Your task to perform on an android device: Open settings on Google Maps Image 0: 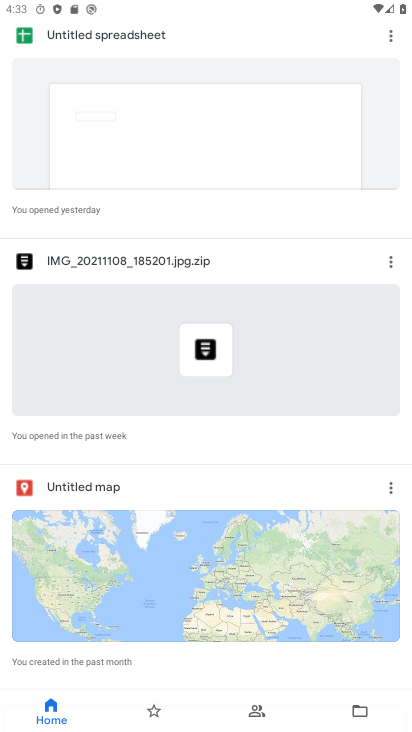
Step 0: press home button
Your task to perform on an android device: Open settings on Google Maps Image 1: 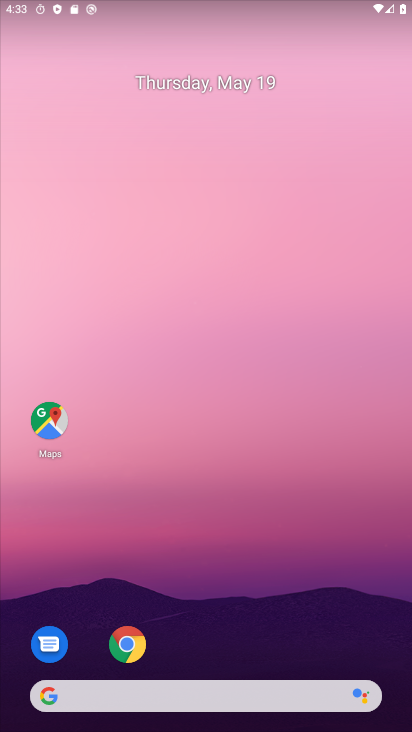
Step 1: drag from (182, 627) to (166, 174)
Your task to perform on an android device: Open settings on Google Maps Image 2: 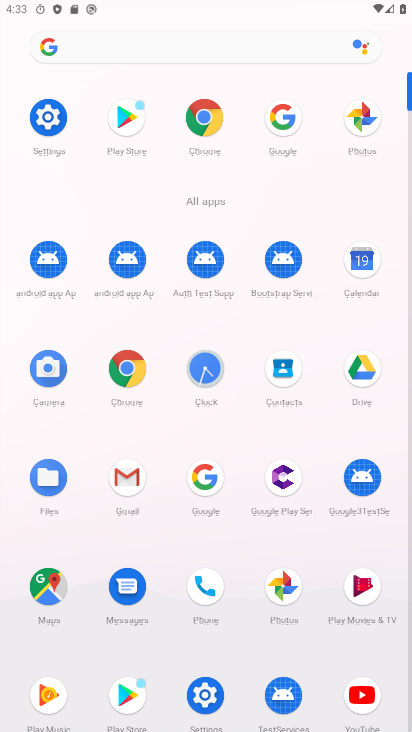
Step 2: click (43, 582)
Your task to perform on an android device: Open settings on Google Maps Image 3: 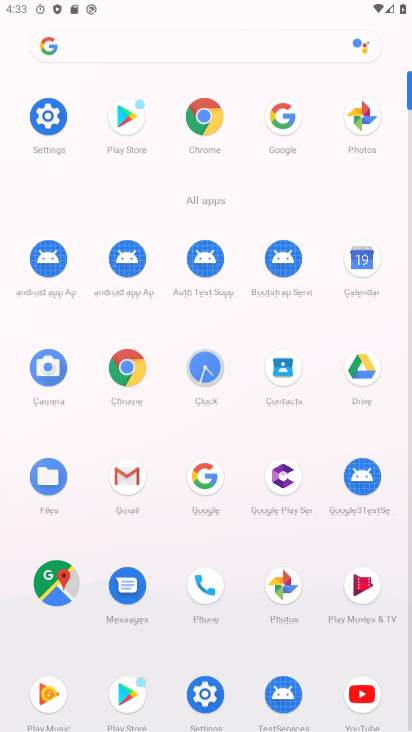
Step 3: click (49, 592)
Your task to perform on an android device: Open settings on Google Maps Image 4: 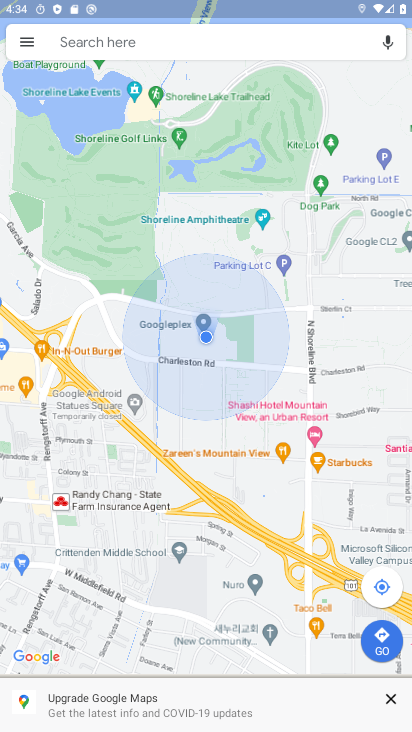
Step 4: click (32, 39)
Your task to perform on an android device: Open settings on Google Maps Image 5: 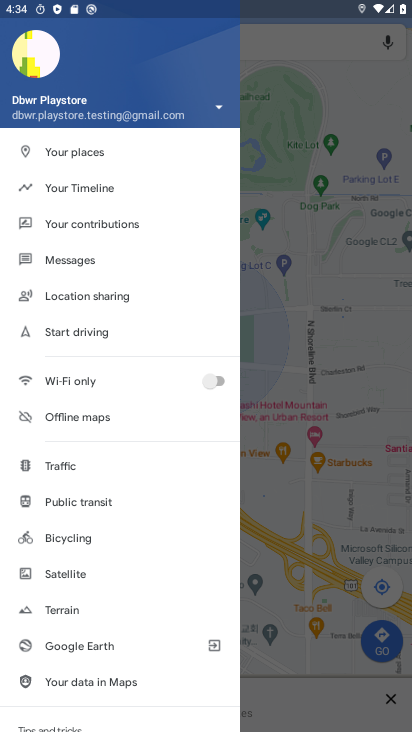
Step 5: drag from (89, 676) to (102, 278)
Your task to perform on an android device: Open settings on Google Maps Image 6: 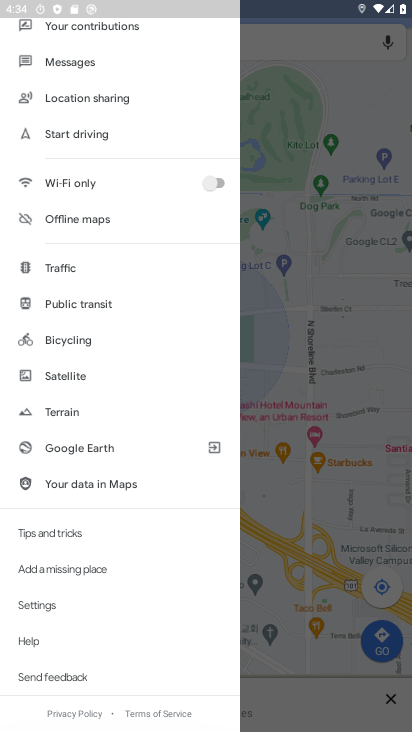
Step 6: drag from (102, 588) to (91, 337)
Your task to perform on an android device: Open settings on Google Maps Image 7: 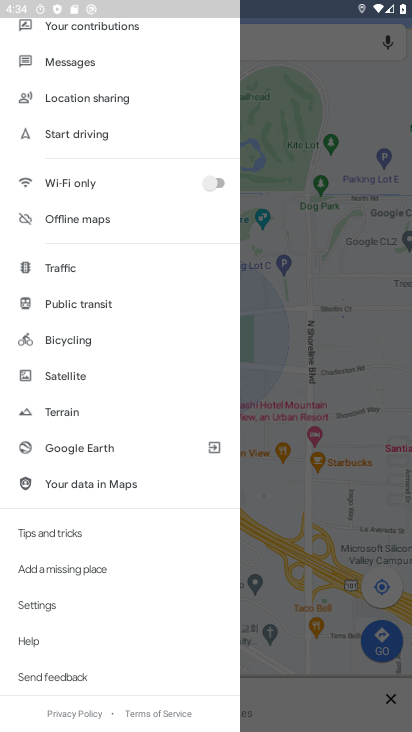
Step 7: click (54, 610)
Your task to perform on an android device: Open settings on Google Maps Image 8: 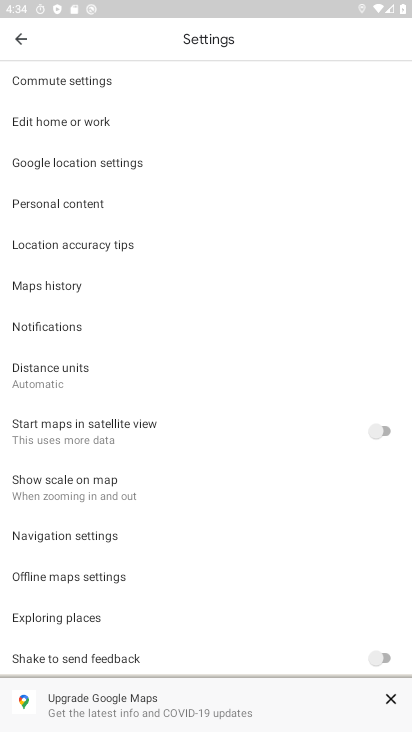
Step 8: task complete